Your task to perform on an android device: What's the weather? Image 0: 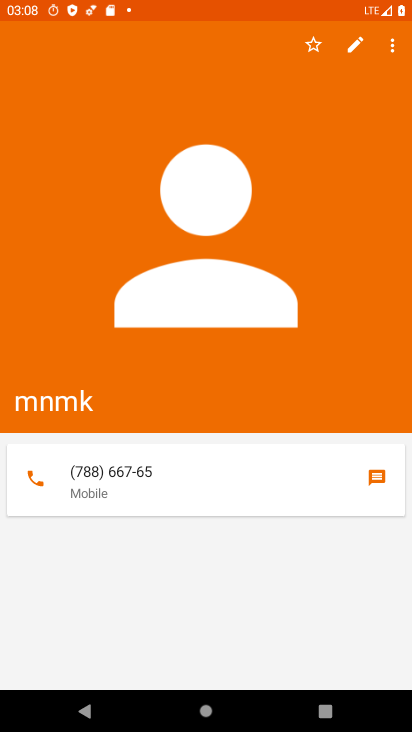
Step 0: press home button
Your task to perform on an android device: What's the weather? Image 1: 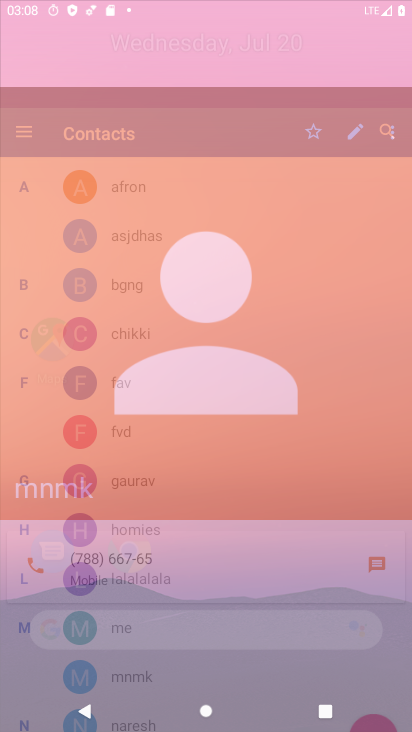
Step 1: drag from (208, 587) to (303, 159)
Your task to perform on an android device: What's the weather? Image 2: 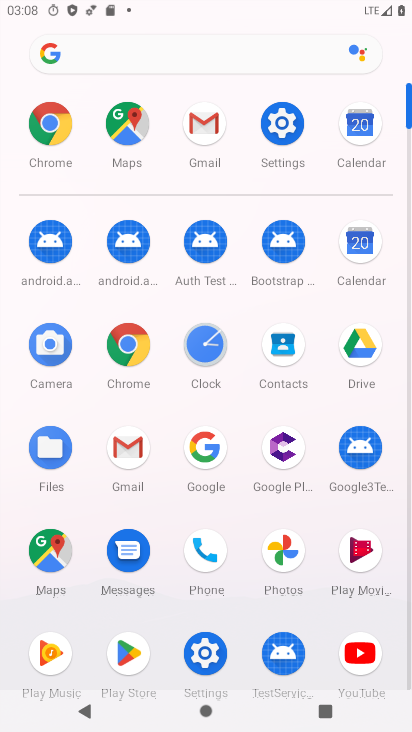
Step 2: click (159, 62)
Your task to perform on an android device: What's the weather? Image 3: 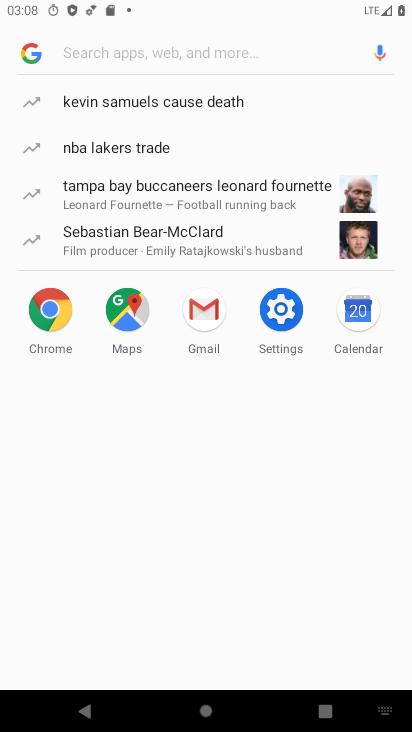
Step 3: type ""
Your task to perform on an android device: What's the weather? Image 4: 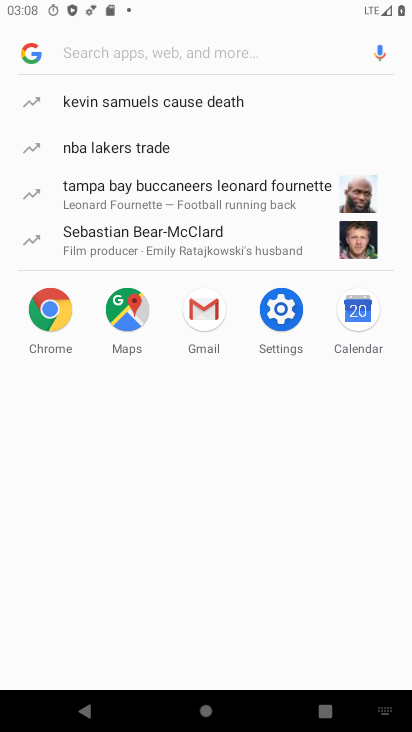
Step 4: type "weather?"
Your task to perform on an android device: What's the weather? Image 5: 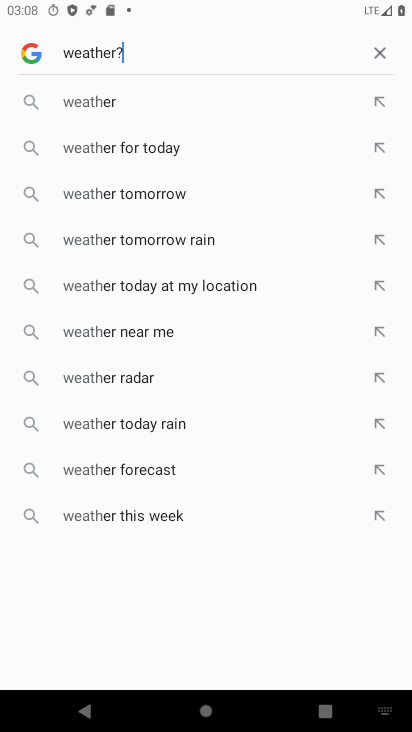
Step 5: type ""
Your task to perform on an android device: What's the weather? Image 6: 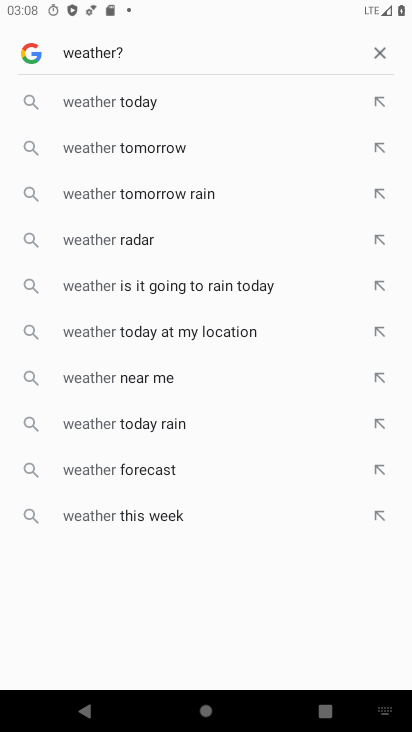
Step 6: click (141, 104)
Your task to perform on an android device: What's the weather? Image 7: 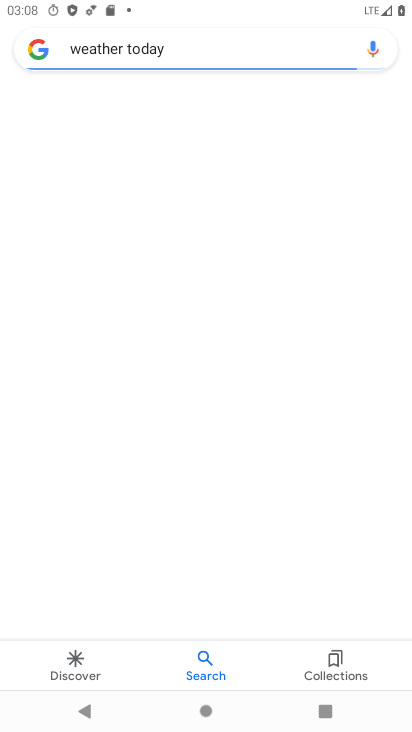
Step 7: click (277, 212)
Your task to perform on an android device: What's the weather? Image 8: 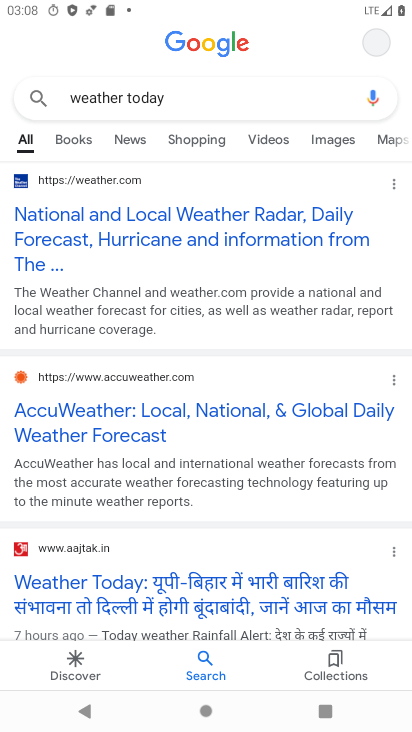
Step 8: task complete